Your task to perform on an android device: star an email in the gmail app Image 0: 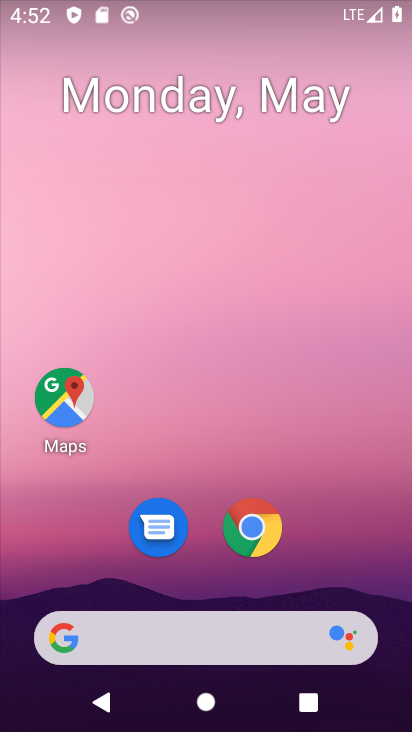
Step 0: drag from (368, 648) to (313, 152)
Your task to perform on an android device: star an email in the gmail app Image 1: 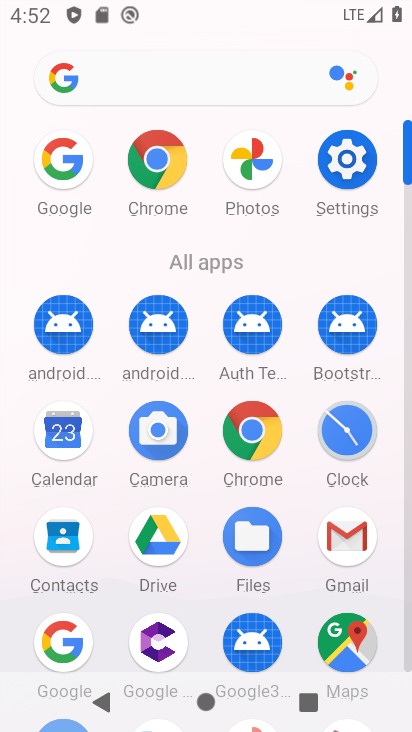
Step 1: click (349, 550)
Your task to perform on an android device: star an email in the gmail app Image 2: 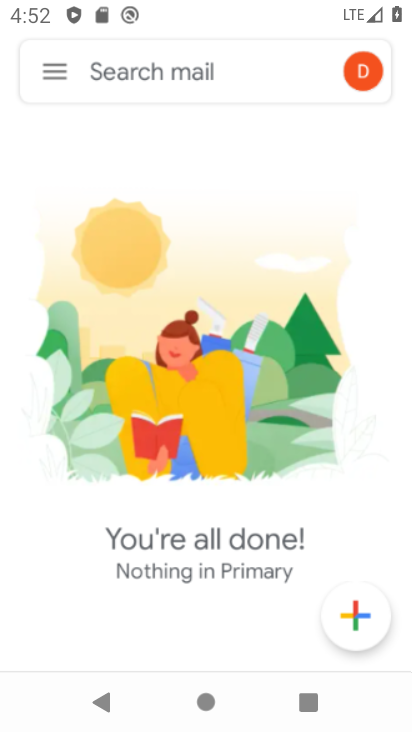
Step 2: click (42, 68)
Your task to perform on an android device: star an email in the gmail app Image 3: 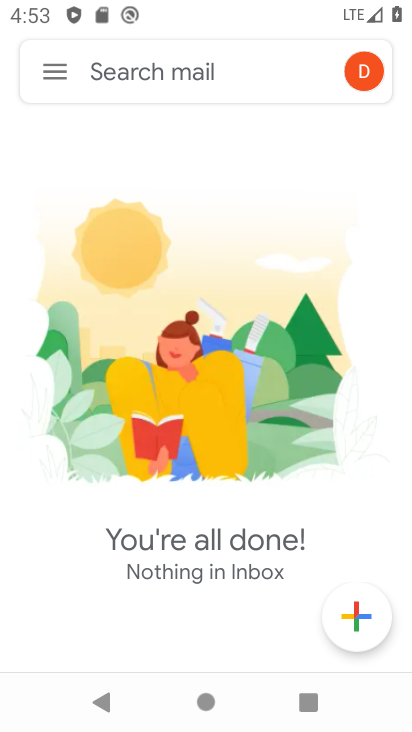
Step 3: click (36, 68)
Your task to perform on an android device: star an email in the gmail app Image 4: 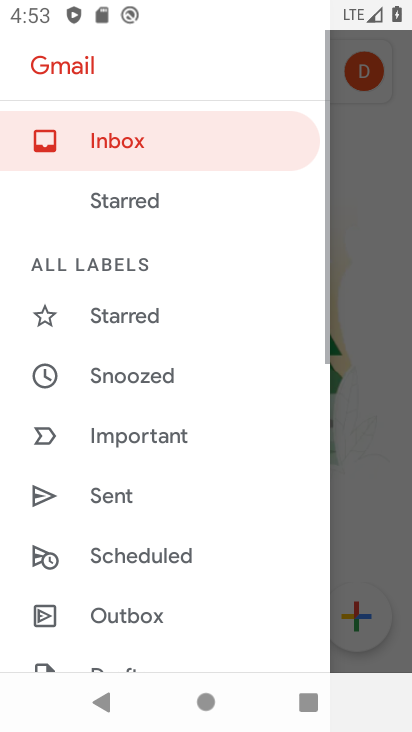
Step 4: click (93, 133)
Your task to perform on an android device: star an email in the gmail app Image 5: 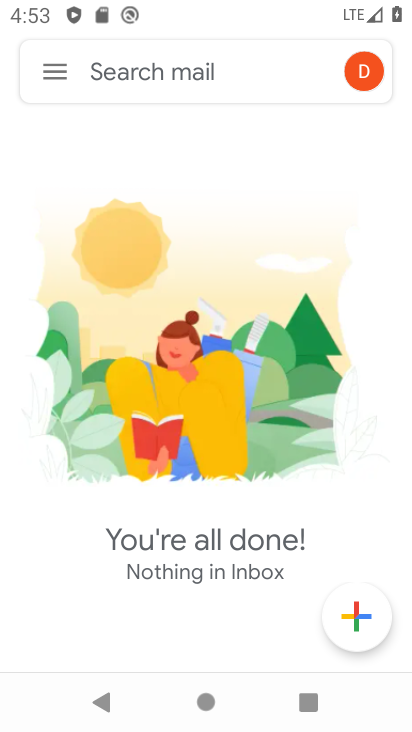
Step 5: task complete